Your task to perform on an android device: change notifications settings Image 0: 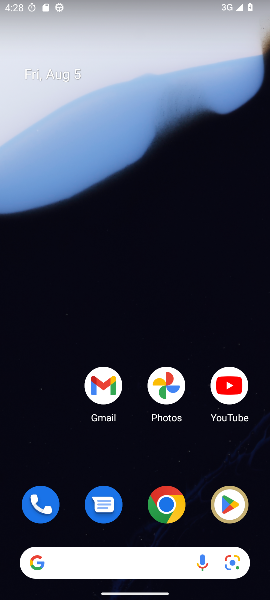
Step 0: drag from (18, 579) to (186, 243)
Your task to perform on an android device: change notifications settings Image 1: 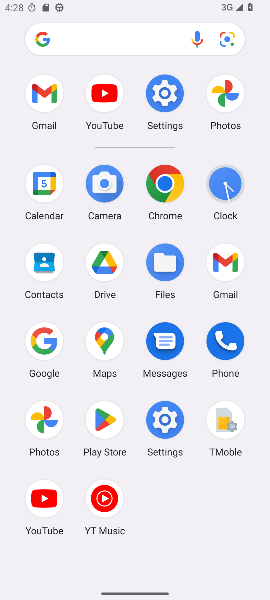
Step 1: click (152, 411)
Your task to perform on an android device: change notifications settings Image 2: 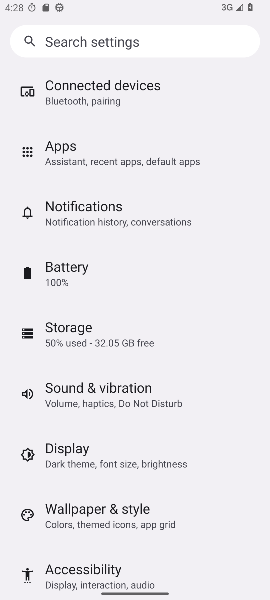
Step 2: click (109, 221)
Your task to perform on an android device: change notifications settings Image 3: 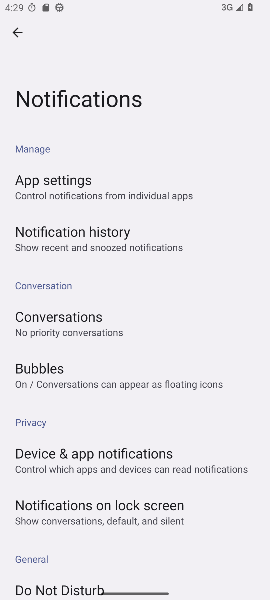
Step 3: click (64, 184)
Your task to perform on an android device: change notifications settings Image 4: 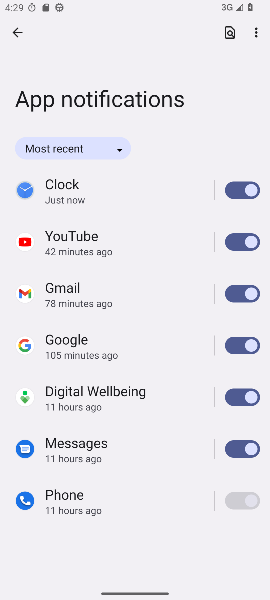
Step 4: task complete